Your task to perform on an android device: open app "Adobe Acrobat Reader: Edit PDF" Image 0: 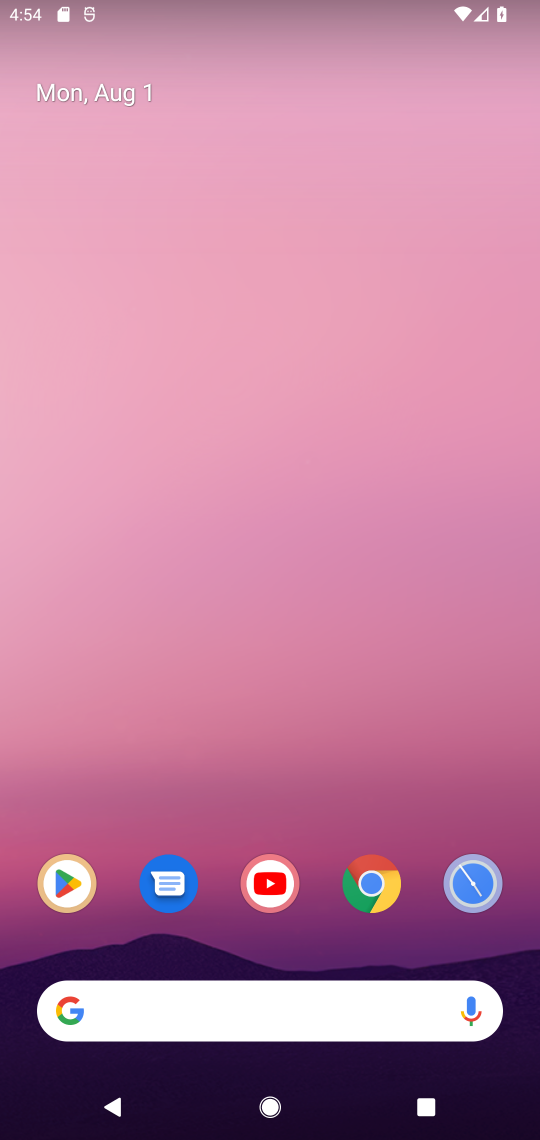
Step 0: drag from (242, 1004) to (281, 342)
Your task to perform on an android device: open app "Adobe Acrobat Reader: Edit PDF" Image 1: 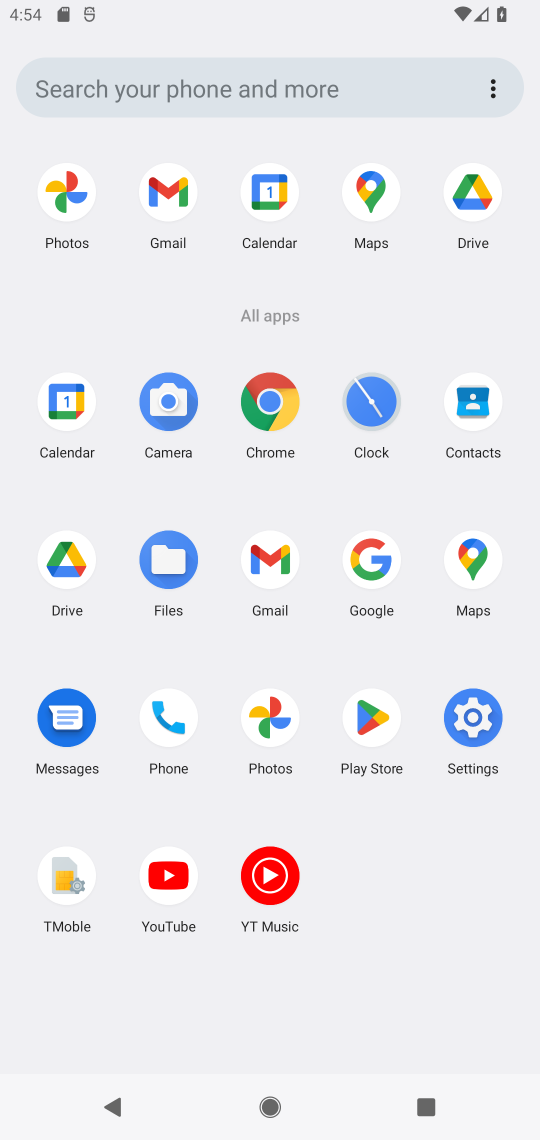
Step 1: click (374, 709)
Your task to perform on an android device: open app "Adobe Acrobat Reader: Edit PDF" Image 2: 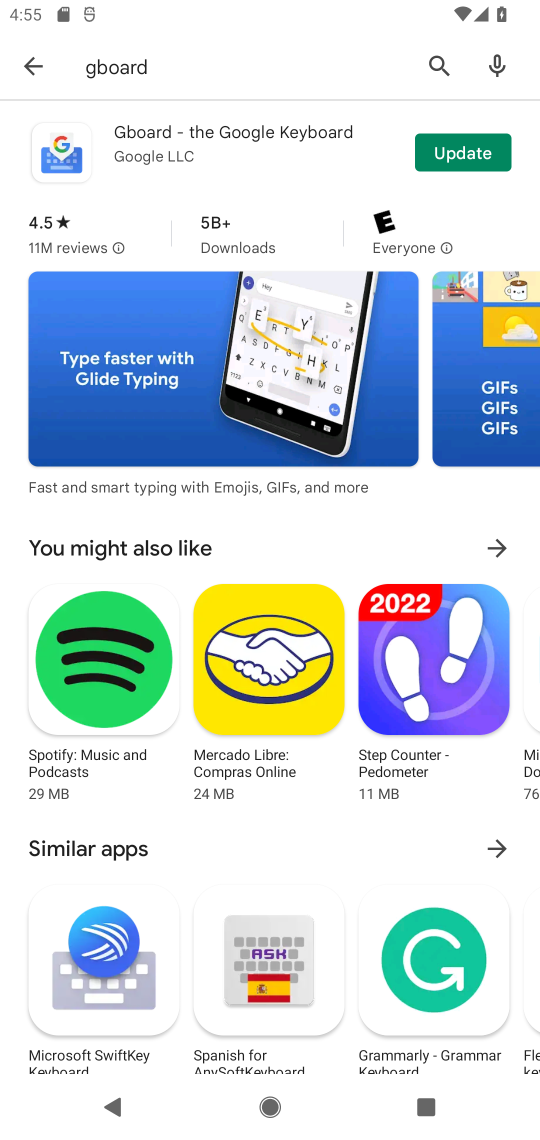
Step 2: click (314, 60)
Your task to perform on an android device: open app "Adobe Acrobat Reader: Edit PDF" Image 3: 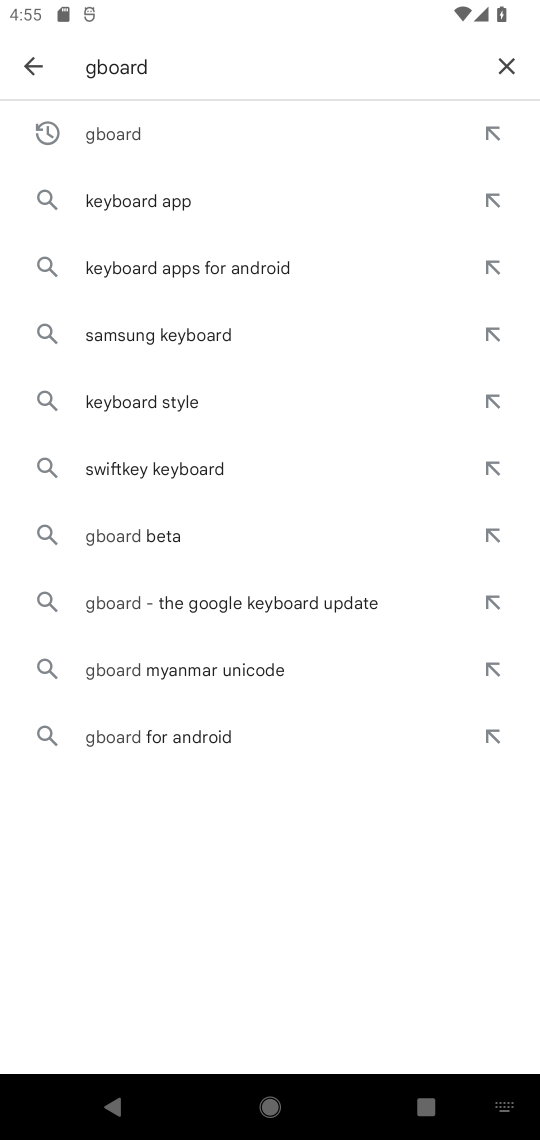
Step 3: click (496, 61)
Your task to perform on an android device: open app "Adobe Acrobat Reader: Edit PDF" Image 4: 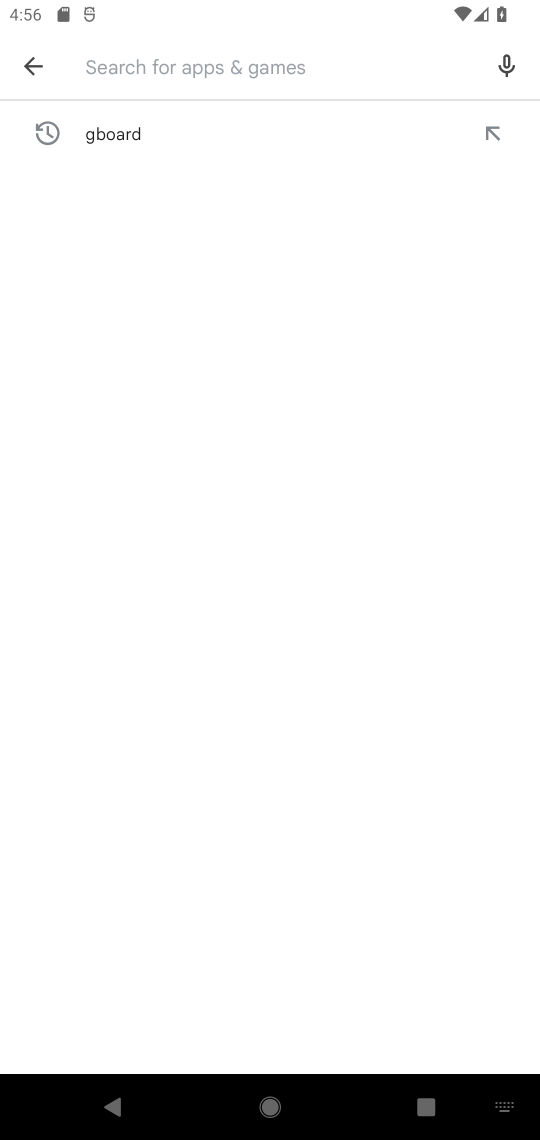
Step 4: type "Adobe Acrobat Reader: Edit PDF"
Your task to perform on an android device: open app "Adobe Acrobat Reader: Edit PDF" Image 5: 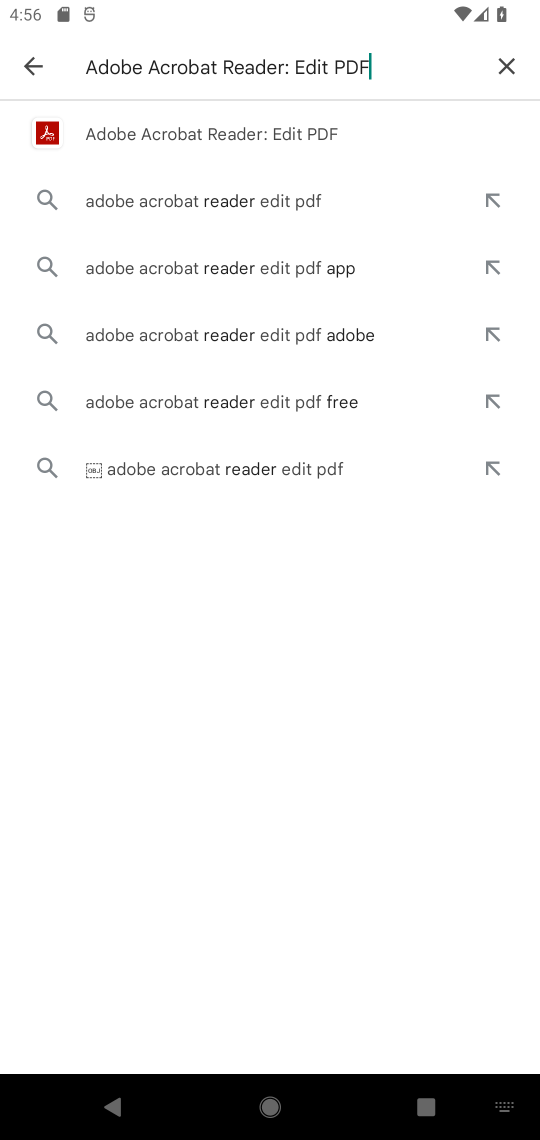
Step 5: click (160, 130)
Your task to perform on an android device: open app "Adobe Acrobat Reader: Edit PDF" Image 6: 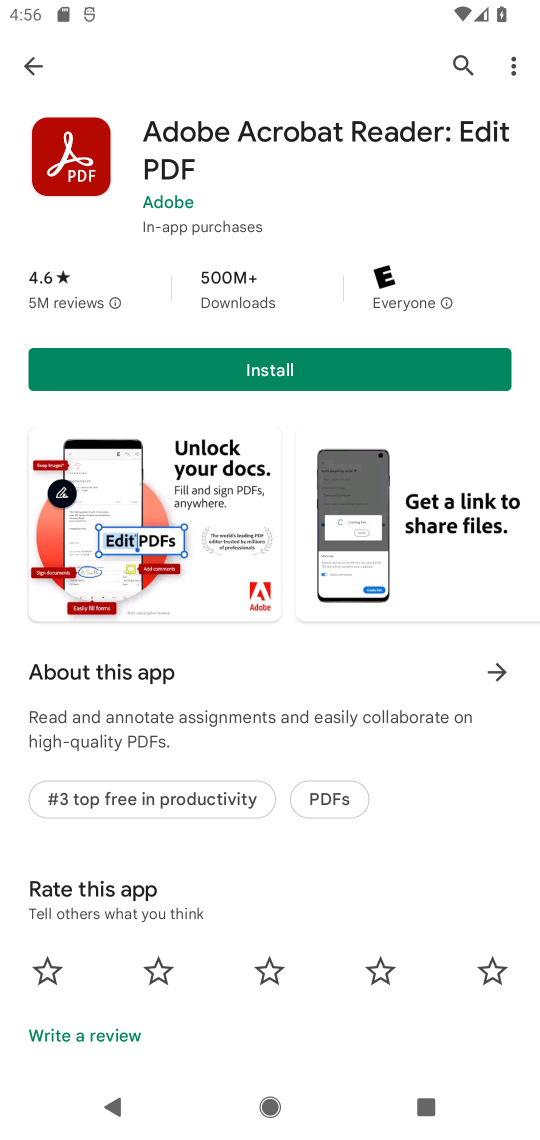
Step 6: click (228, 373)
Your task to perform on an android device: open app "Adobe Acrobat Reader: Edit PDF" Image 7: 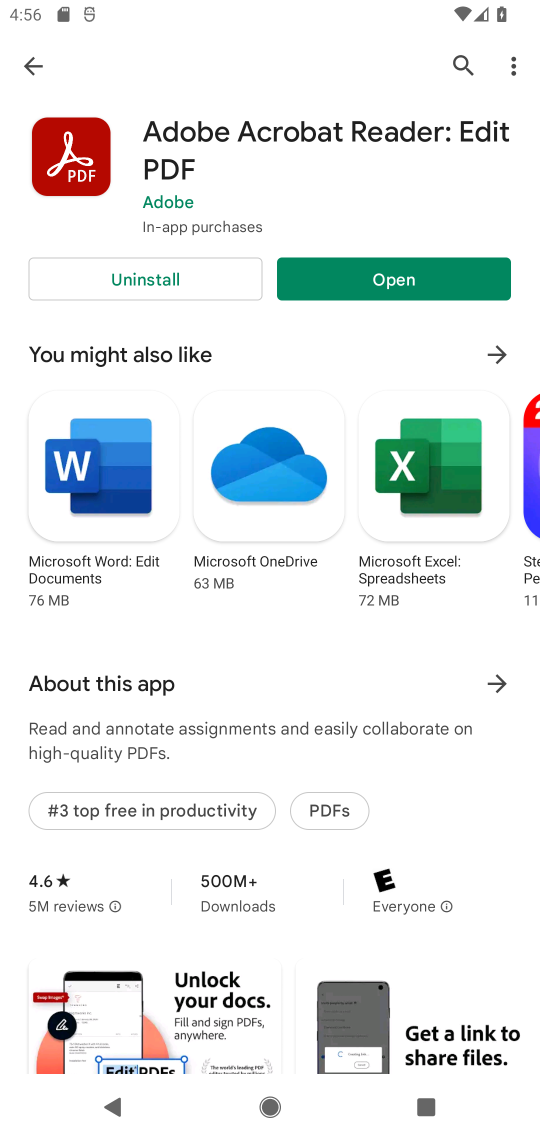
Step 7: task complete